Your task to perform on an android device: Go to sound settings Image 0: 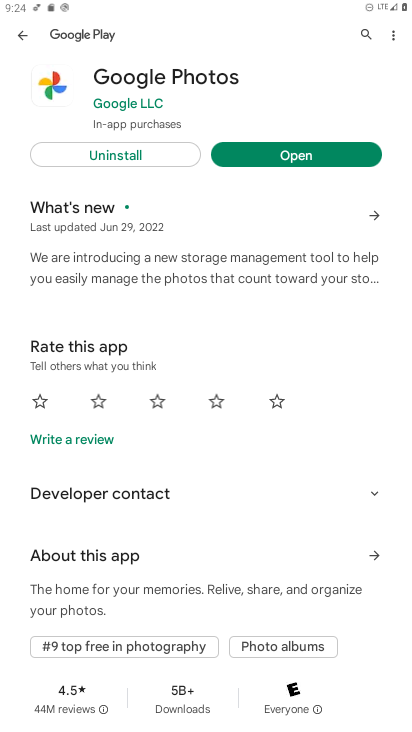
Step 0: press home button
Your task to perform on an android device: Go to sound settings Image 1: 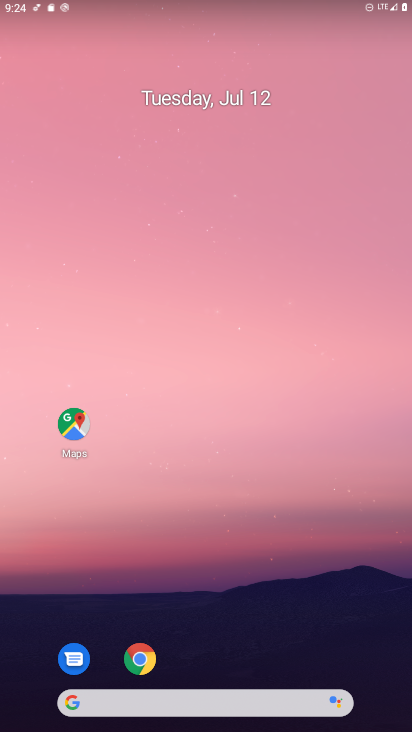
Step 1: drag from (212, 704) to (237, 208)
Your task to perform on an android device: Go to sound settings Image 2: 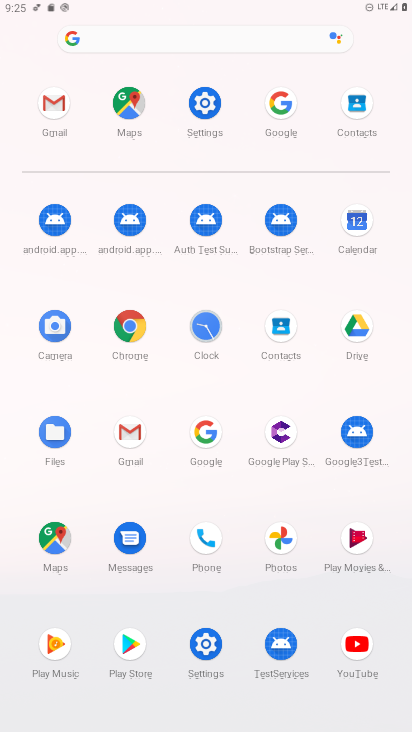
Step 2: click (204, 104)
Your task to perform on an android device: Go to sound settings Image 3: 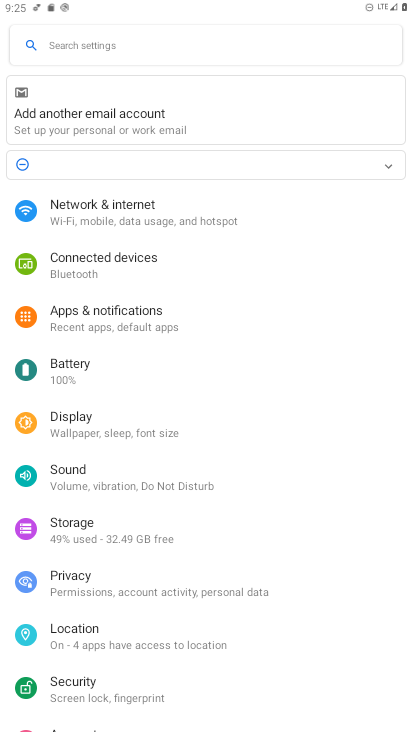
Step 3: click (138, 490)
Your task to perform on an android device: Go to sound settings Image 4: 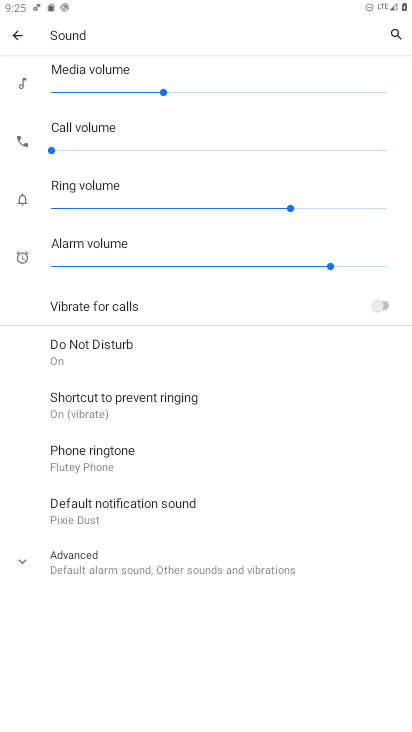
Step 4: task complete